Your task to perform on an android device: set the timer Image 0: 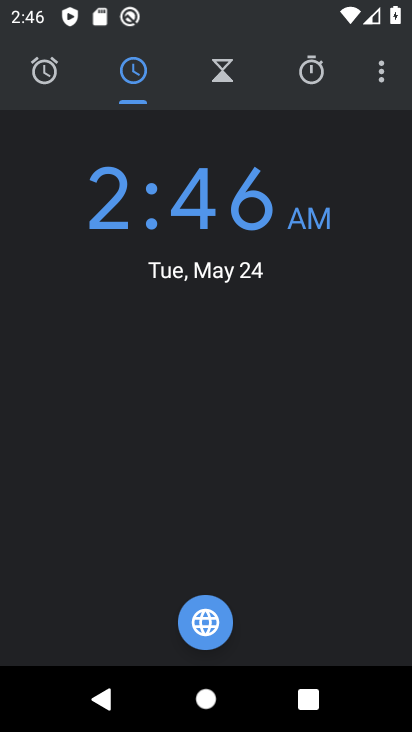
Step 0: click (184, 74)
Your task to perform on an android device: set the timer Image 1: 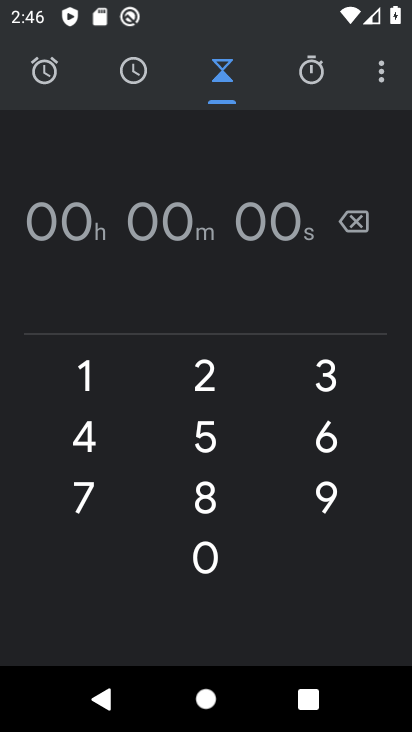
Step 1: click (201, 370)
Your task to perform on an android device: set the timer Image 2: 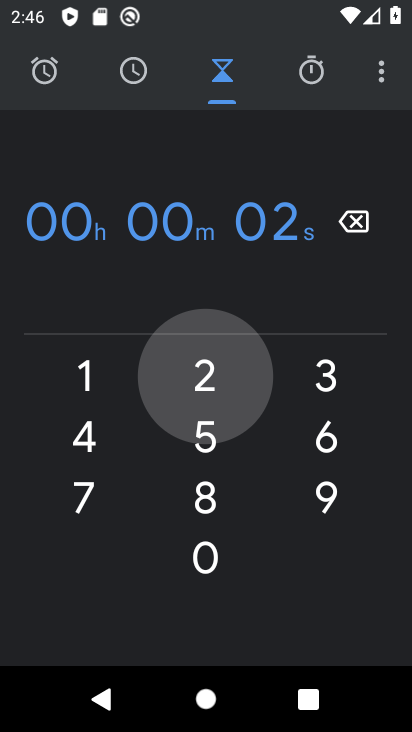
Step 2: click (201, 433)
Your task to perform on an android device: set the timer Image 3: 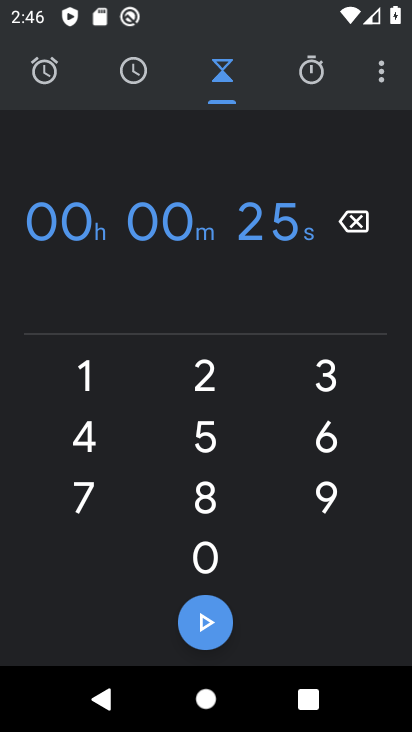
Step 3: click (314, 436)
Your task to perform on an android device: set the timer Image 4: 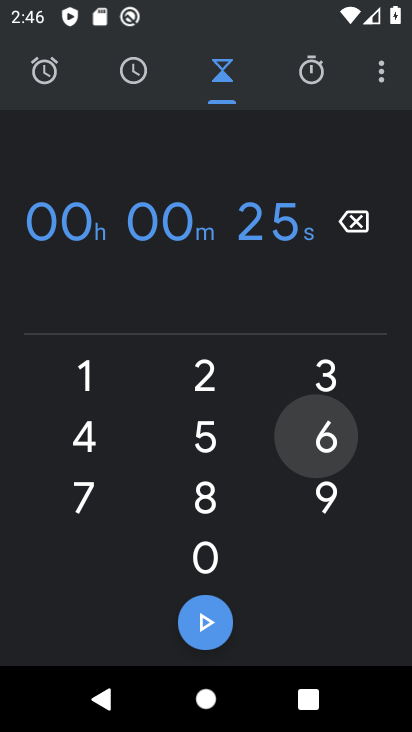
Step 4: click (333, 353)
Your task to perform on an android device: set the timer Image 5: 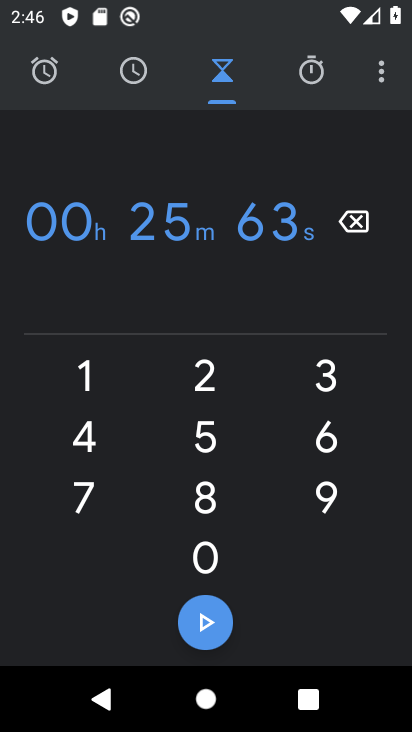
Step 5: task complete